Your task to perform on an android device: Open Android settings Image 0: 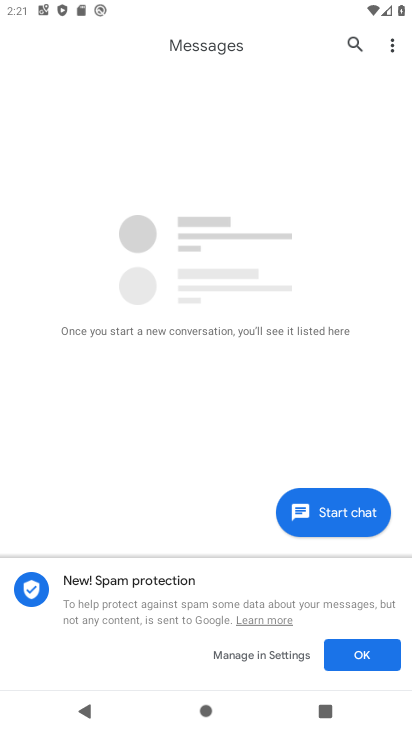
Step 0: click (48, 162)
Your task to perform on an android device: Open Android settings Image 1: 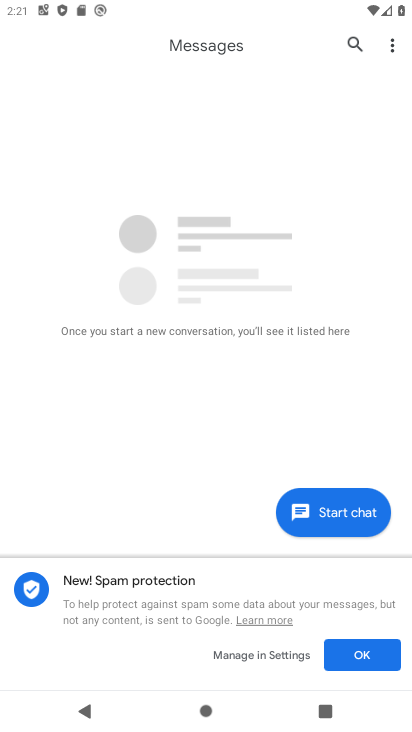
Step 1: press home button
Your task to perform on an android device: Open Android settings Image 2: 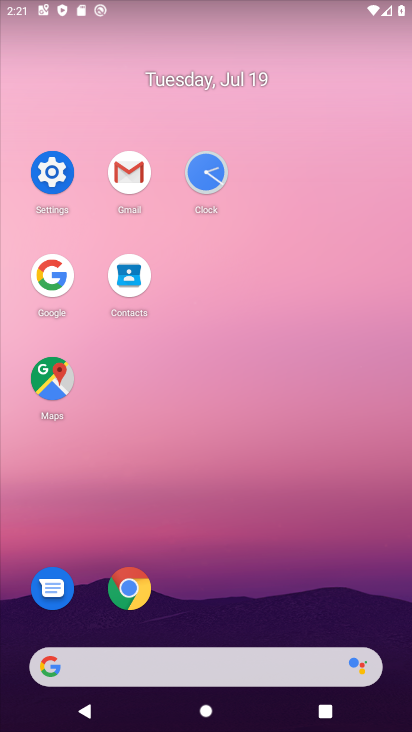
Step 2: click (50, 184)
Your task to perform on an android device: Open Android settings Image 3: 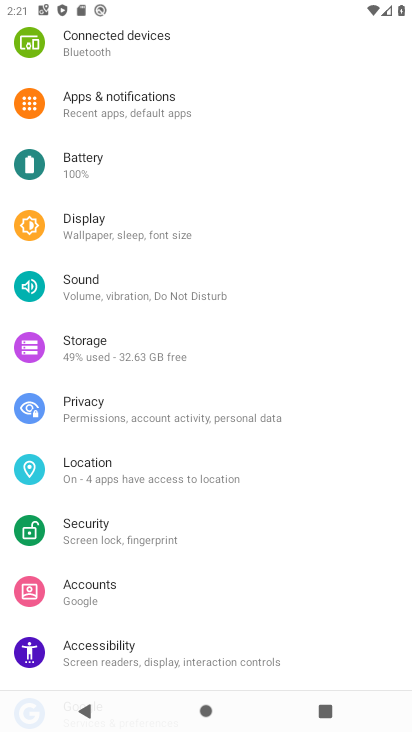
Step 3: task complete